Your task to perform on an android device: empty trash in google photos Image 0: 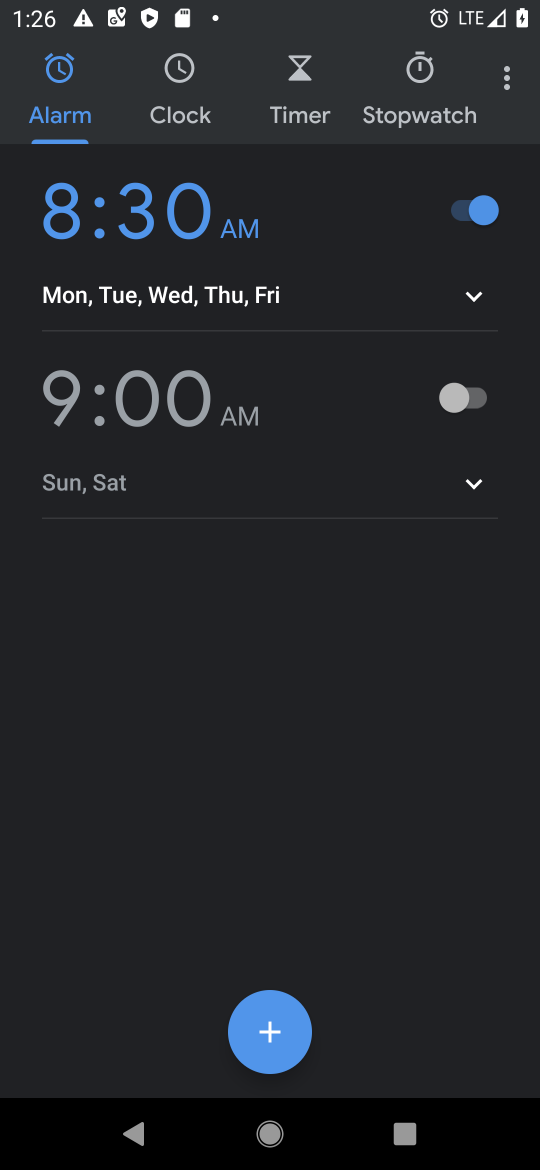
Step 0: press home button
Your task to perform on an android device: empty trash in google photos Image 1: 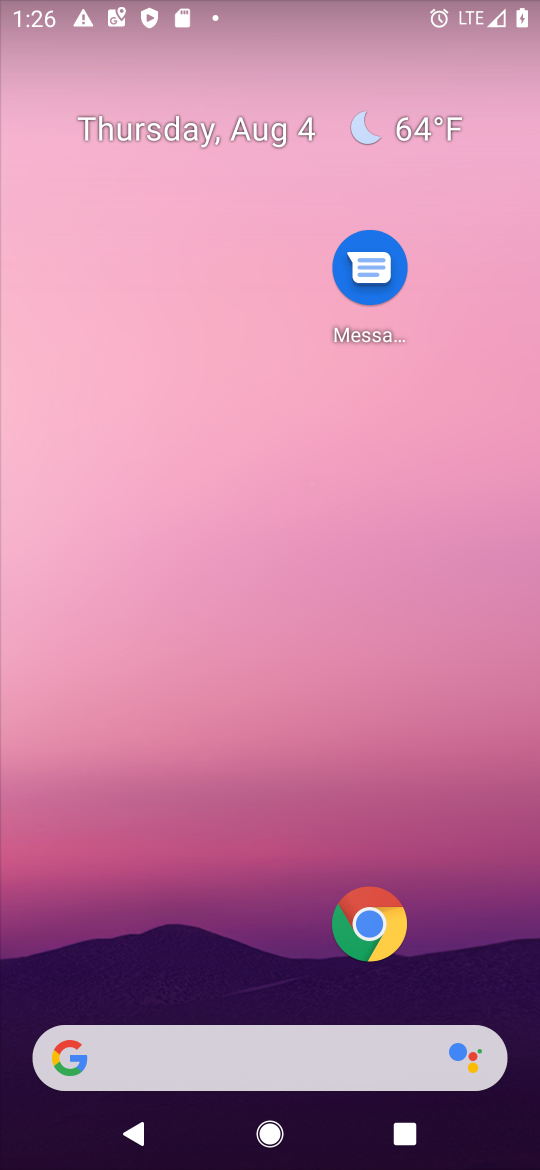
Step 1: drag from (148, 982) to (255, 340)
Your task to perform on an android device: empty trash in google photos Image 2: 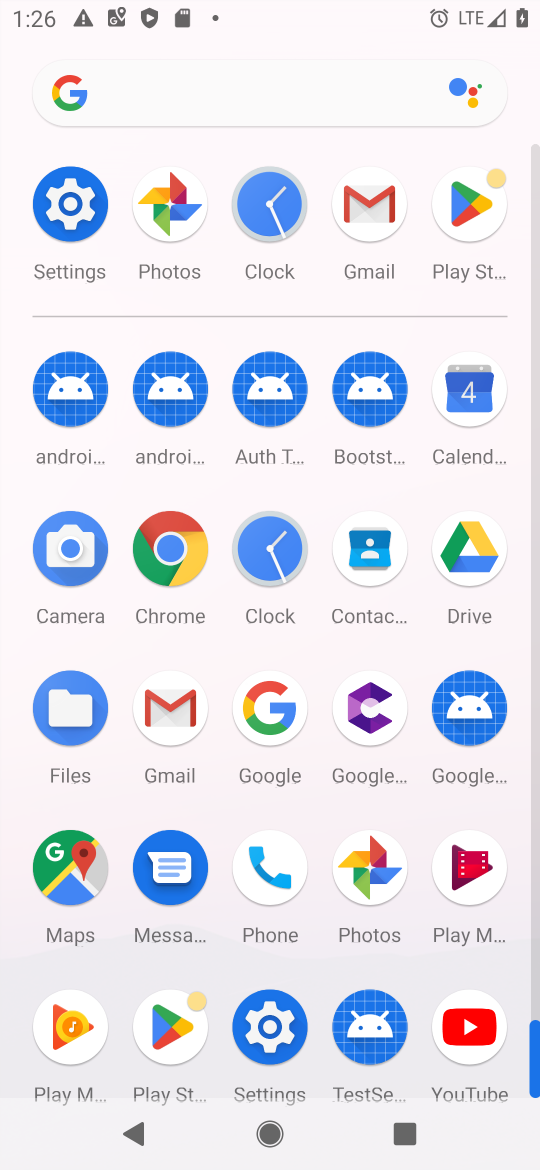
Step 2: click (376, 856)
Your task to perform on an android device: empty trash in google photos Image 3: 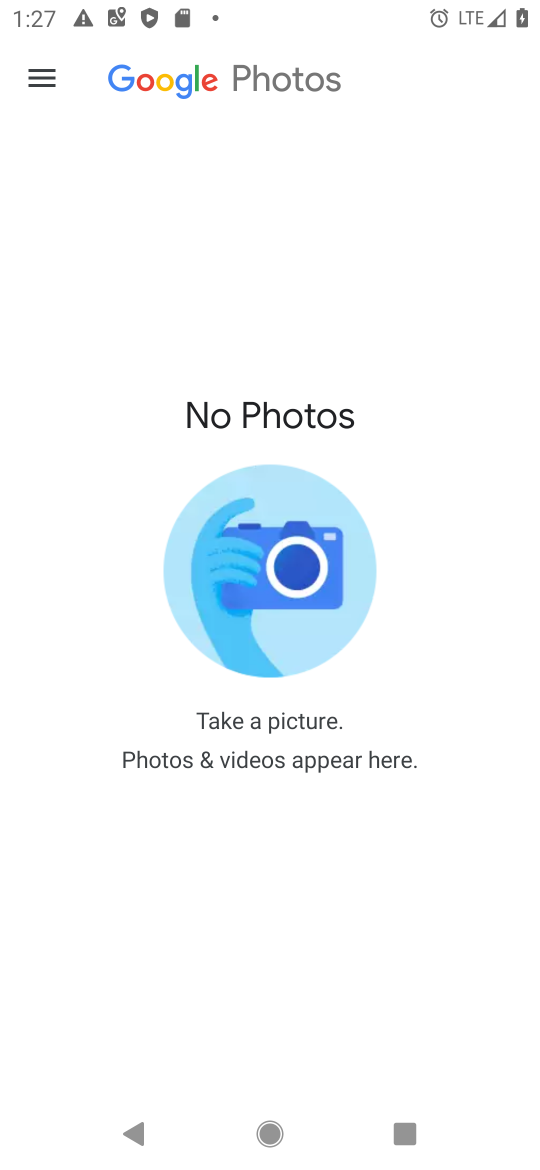
Step 3: click (38, 76)
Your task to perform on an android device: empty trash in google photos Image 4: 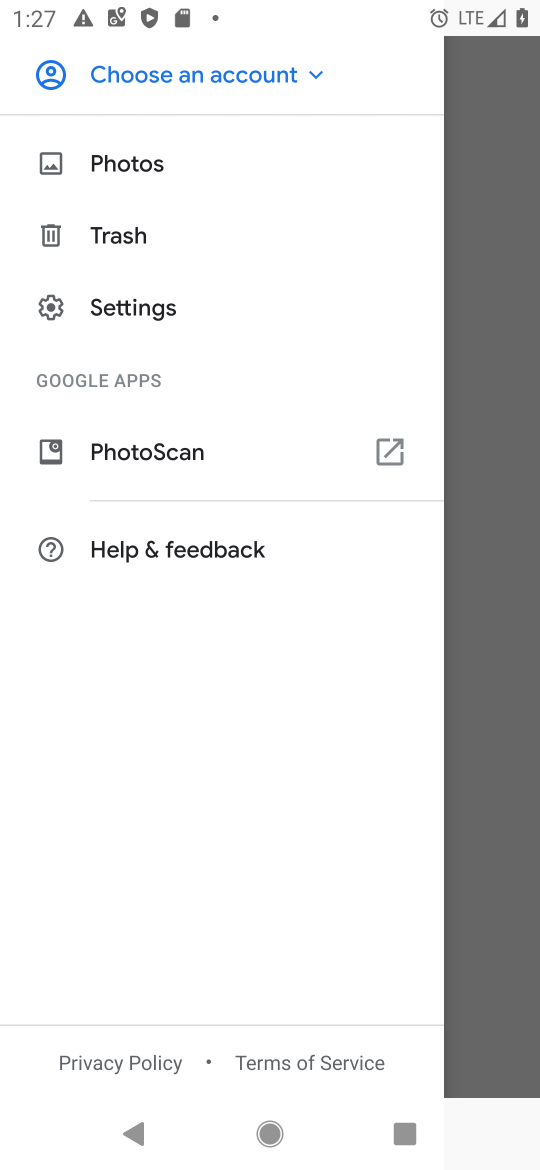
Step 4: click (112, 222)
Your task to perform on an android device: empty trash in google photos Image 5: 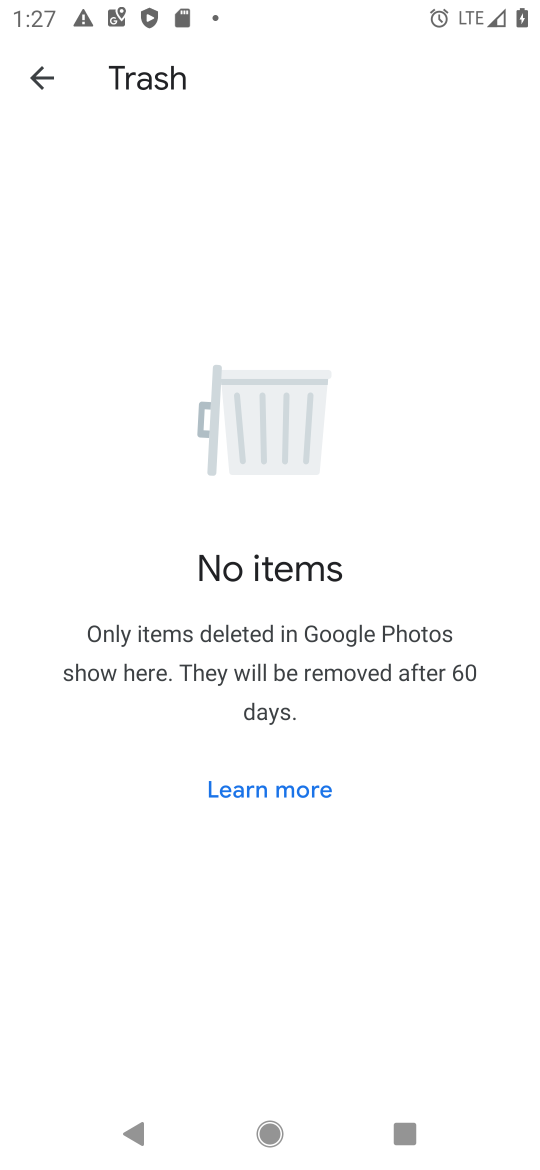
Step 5: task complete